Your task to perform on an android device: Open privacy settings Image 0: 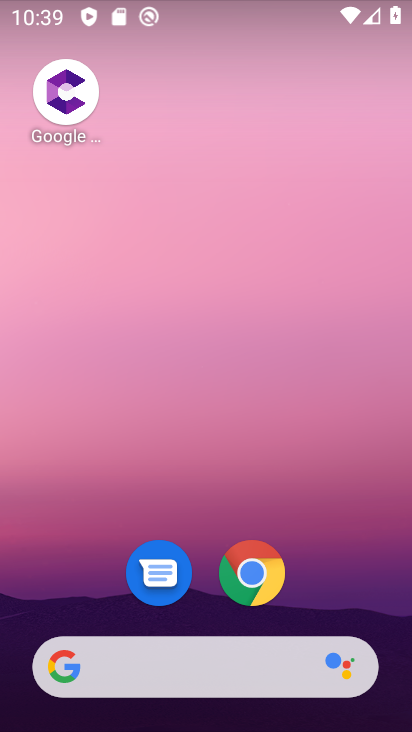
Step 0: drag from (212, 719) to (294, 130)
Your task to perform on an android device: Open privacy settings Image 1: 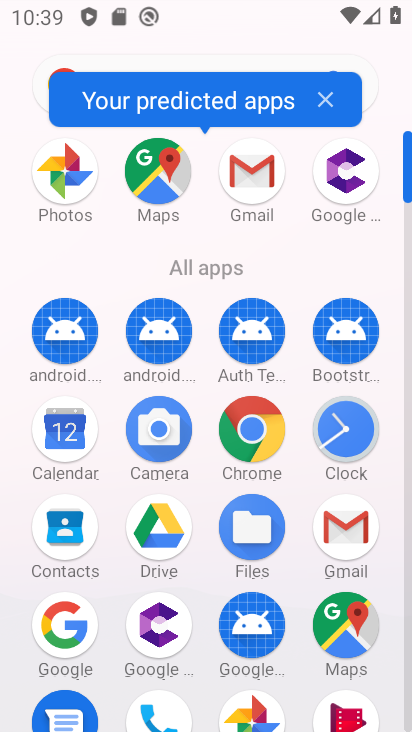
Step 1: drag from (140, 589) to (258, 226)
Your task to perform on an android device: Open privacy settings Image 2: 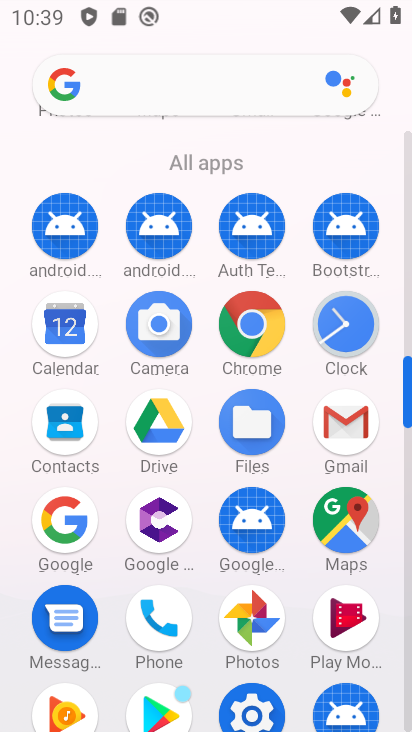
Step 2: click (246, 698)
Your task to perform on an android device: Open privacy settings Image 3: 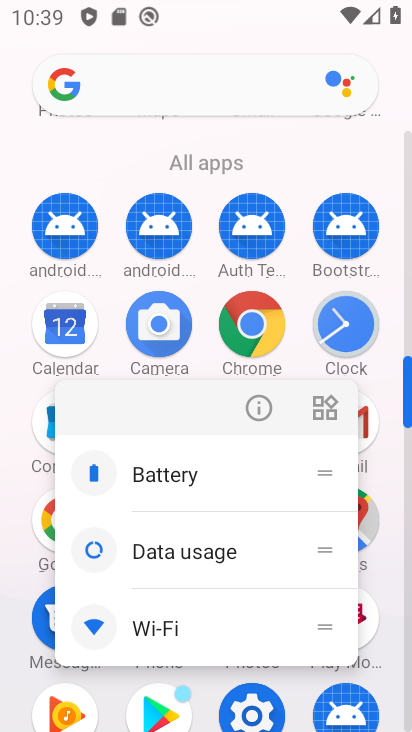
Step 3: click (253, 694)
Your task to perform on an android device: Open privacy settings Image 4: 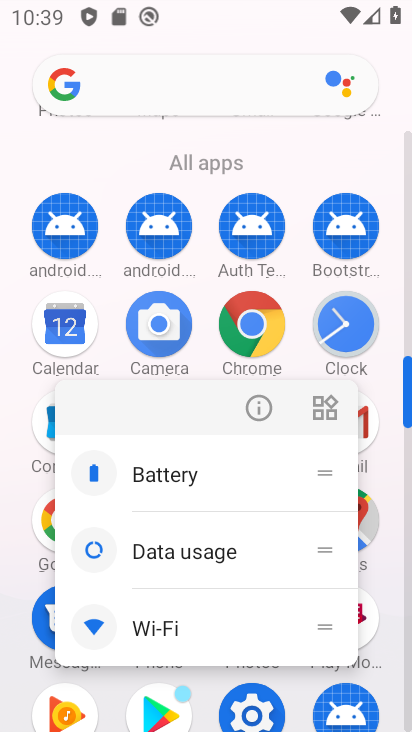
Step 4: click (253, 694)
Your task to perform on an android device: Open privacy settings Image 5: 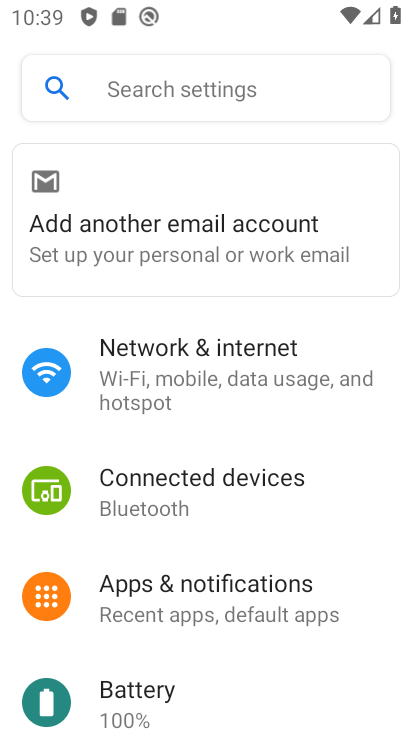
Step 5: drag from (309, 722) to (190, 232)
Your task to perform on an android device: Open privacy settings Image 6: 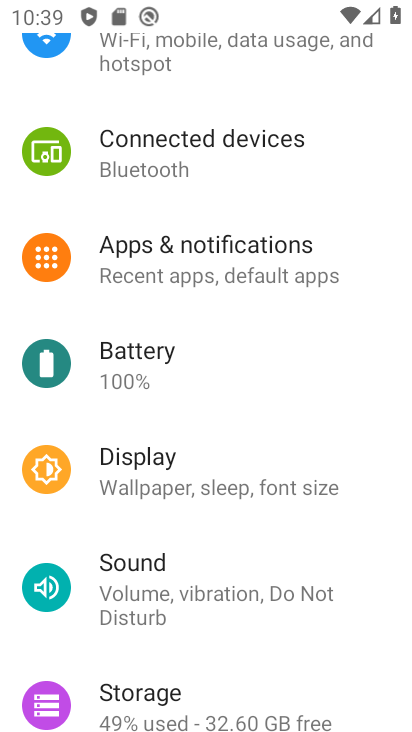
Step 6: drag from (217, 594) to (268, 167)
Your task to perform on an android device: Open privacy settings Image 7: 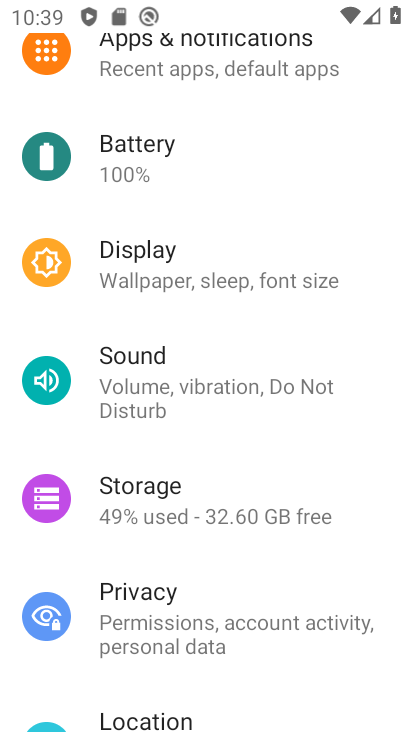
Step 7: click (190, 624)
Your task to perform on an android device: Open privacy settings Image 8: 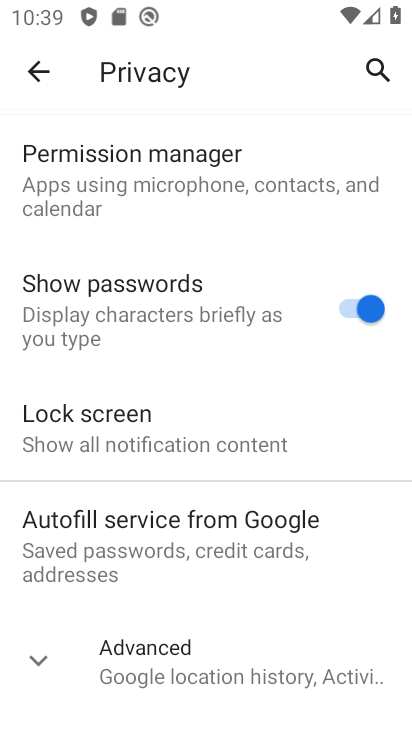
Step 8: task complete